Your task to perform on an android device: check battery use Image 0: 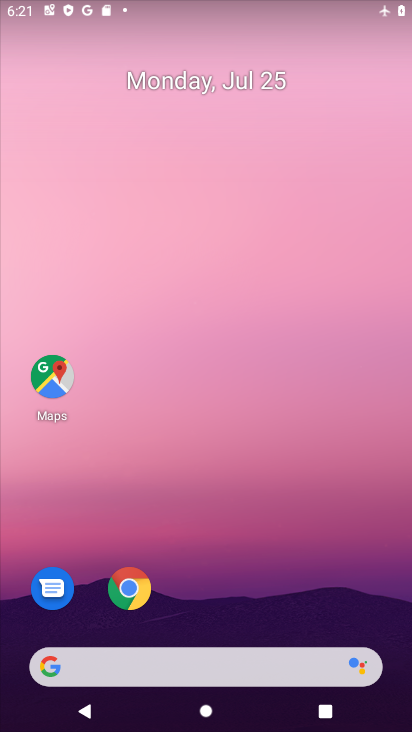
Step 0: drag from (211, 505) to (190, 134)
Your task to perform on an android device: check battery use Image 1: 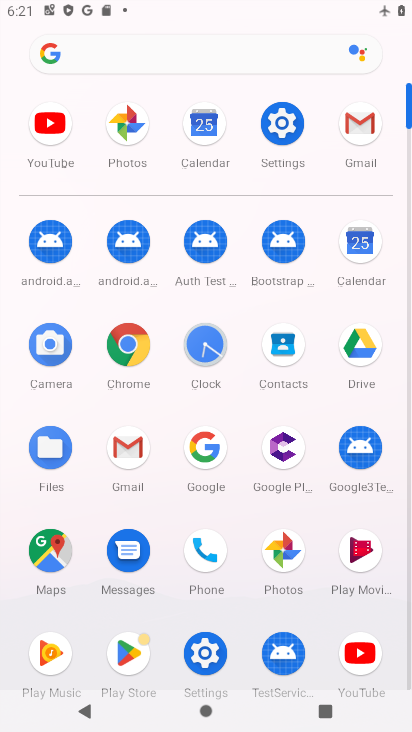
Step 1: click (201, 656)
Your task to perform on an android device: check battery use Image 2: 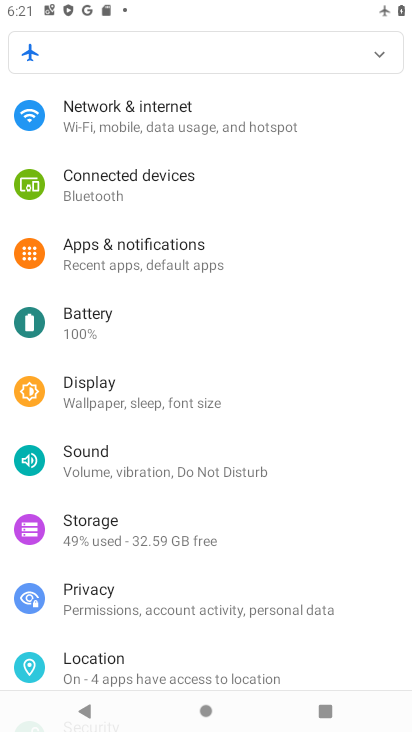
Step 2: click (86, 325)
Your task to perform on an android device: check battery use Image 3: 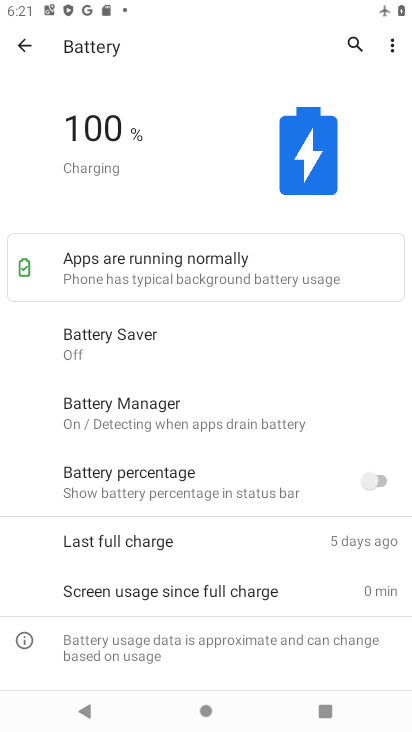
Step 3: task complete